Your task to perform on an android device: Do I have any events today? Image 0: 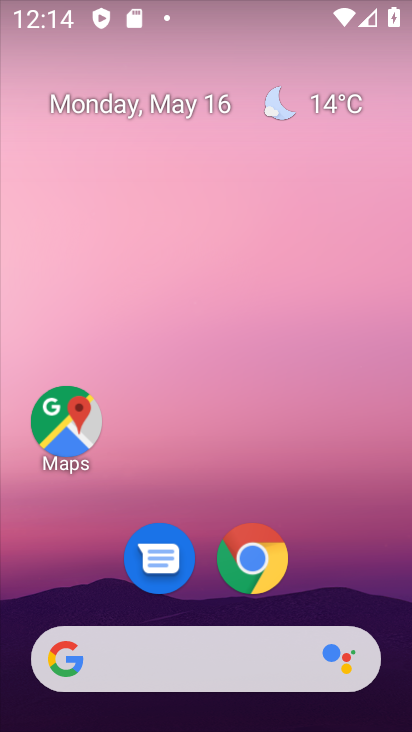
Step 0: drag from (338, 589) to (338, 155)
Your task to perform on an android device: Do I have any events today? Image 1: 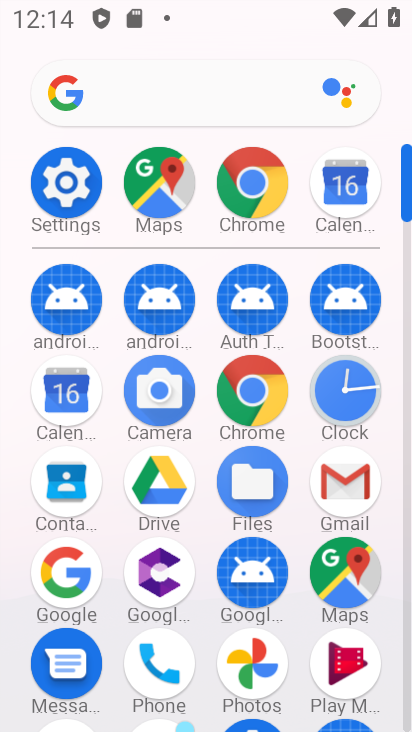
Step 1: click (59, 401)
Your task to perform on an android device: Do I have any events today? Image 2: 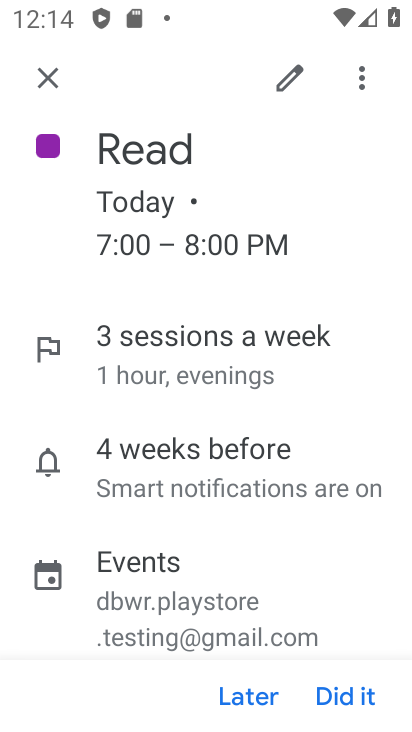
Step 2: click (45, 74)
Your task to perform on an android device: Do I have any events today? Image 3: 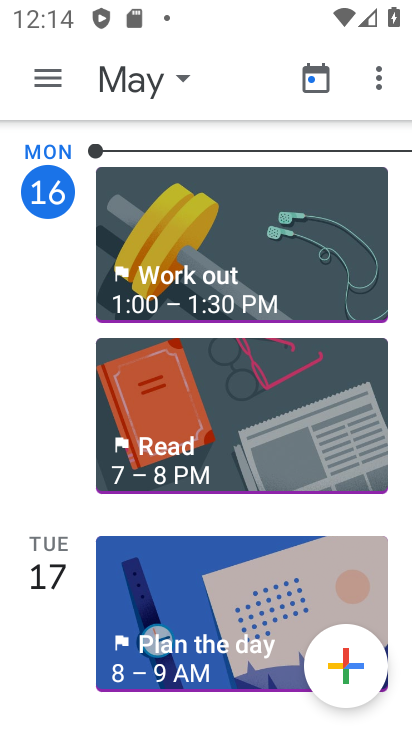
Step 3: click (243, 277)
Your task to perform on an android device: Do I have any events today? Image 4: 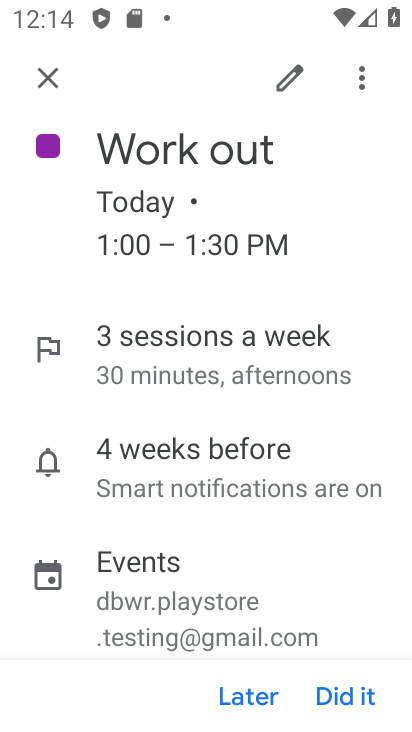
Step 4: task complete